Your task to perform on an android device: Go to Android settings Image 0: 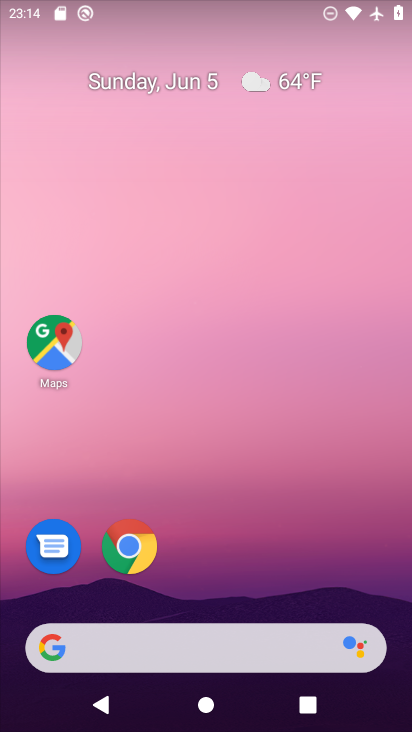
Step 0: drag from (217, 579) to (299, 159)
Your task to perform on an android device: Go to Android settings Image 1: 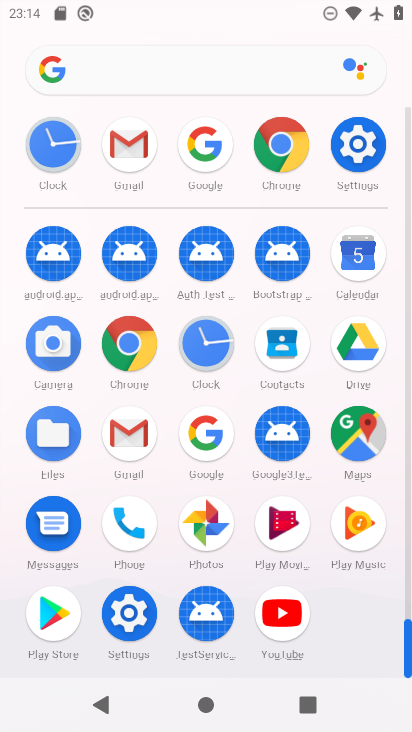
Step 1: click (129, 615)
Your task to perform on an android device: Go to Android settings Image 2: 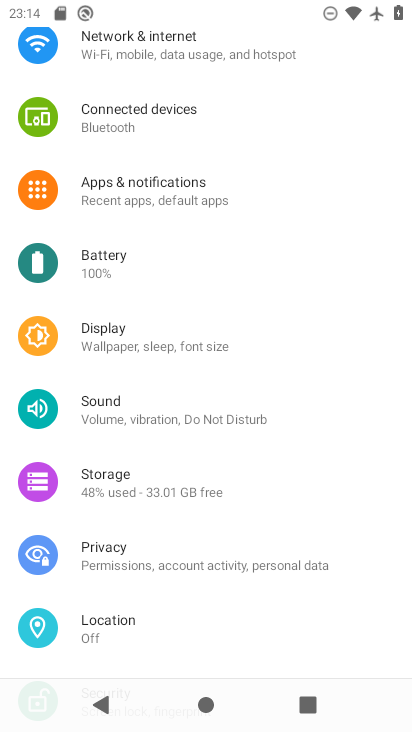
Step 2: drag from (166, 523) to (237, 0)
Your task to perform on an android device: Go to Android settings Image 3: 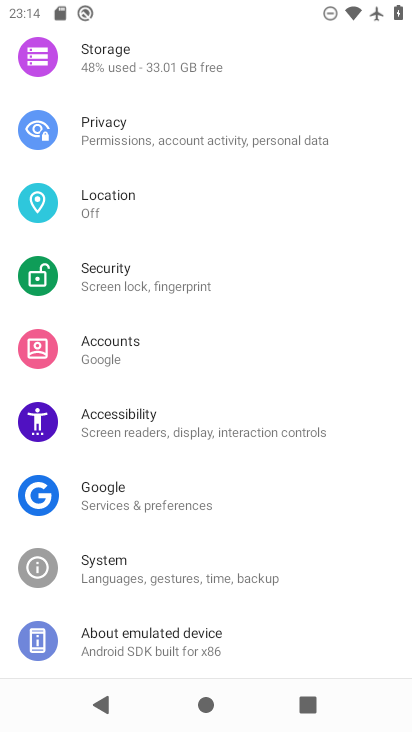
Step 3: click (166, 640)
Your task to perform on an android device: Go to Android settings Image 4: 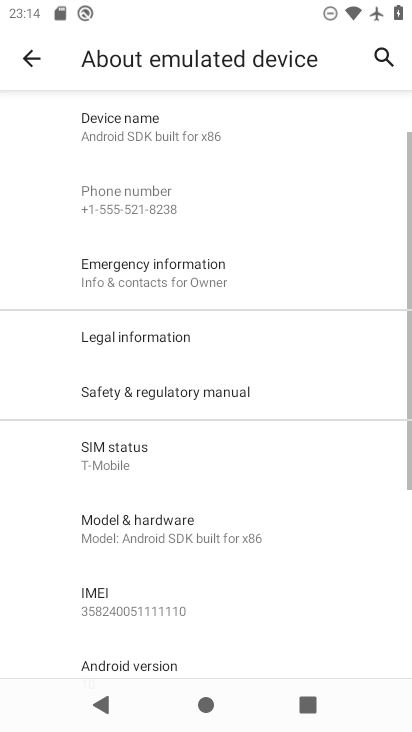
Step 4: drag from (167, 638) to (273, 102)
Your task to perform on an android device: Go to Android settings Image 5: 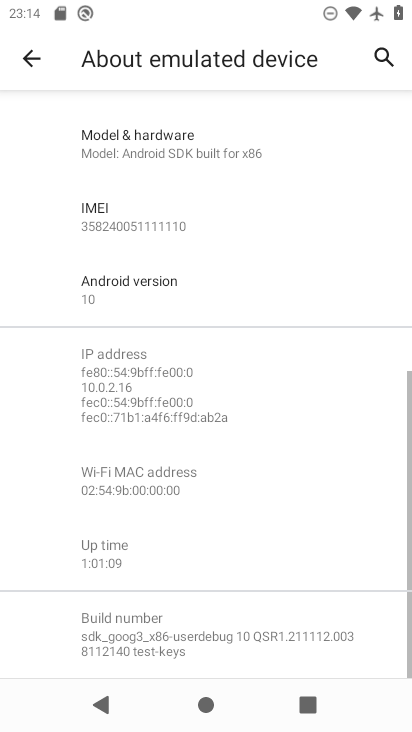
Step 5: click (179, 301)
Your task to perform on an android device: Go to Android settings Image 6: 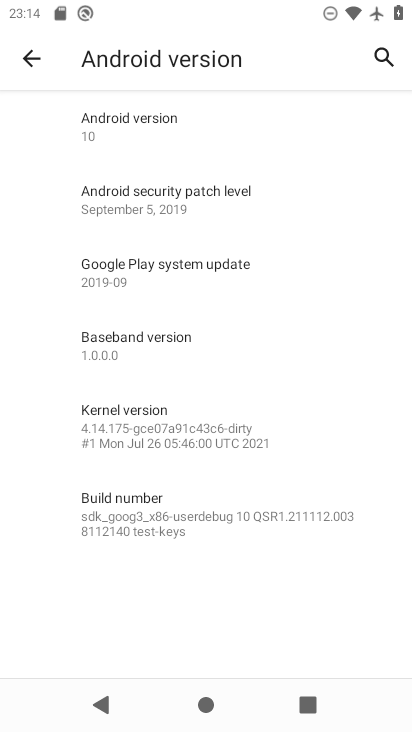
Step 6: drag from (252, 506) to (289, 117)
Your task to perform on an android device: Go to Android settings Image 7: 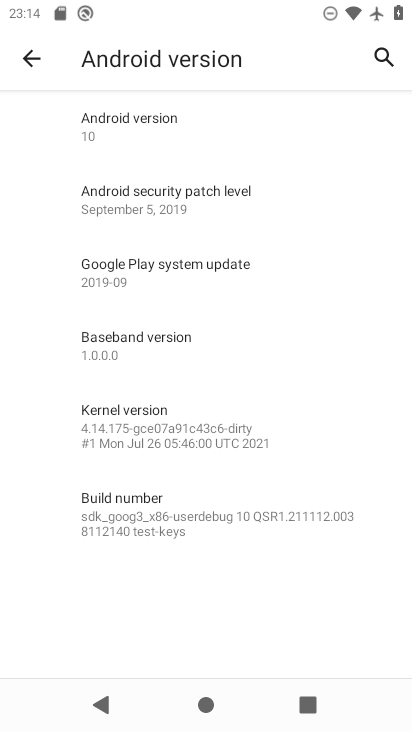
Step 7: click (174, 127)
Your task to perform on an android device: Go to Android settings Image 8: 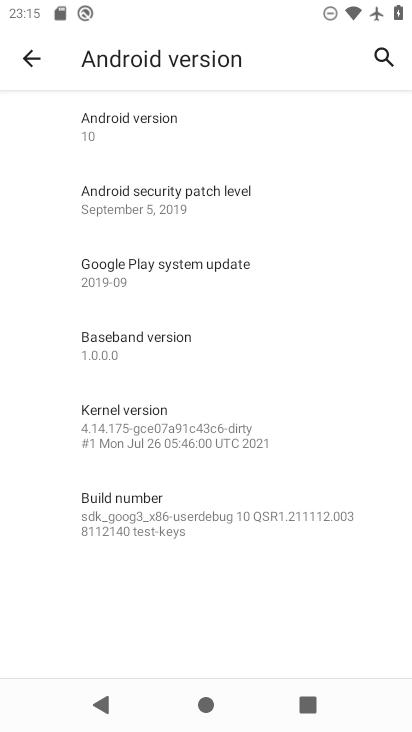
Step 8: task complete